Your task to perform on an android device: open a bookmark in the chrome app Image 0: 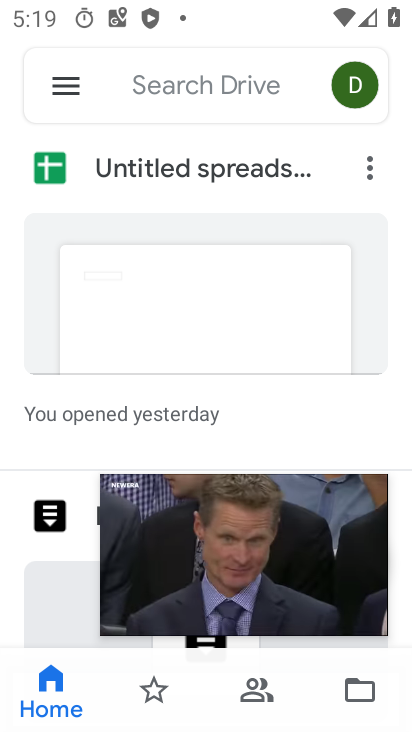
Step 0: press home button
Your task to perform on an android device: open a bookmark in the chrome app Image 1: 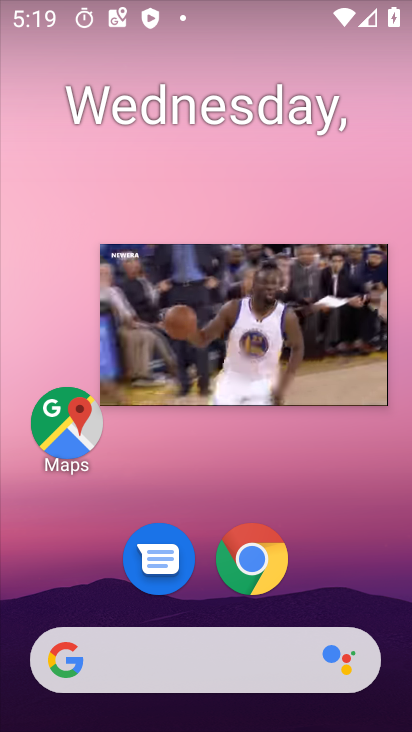
Step 1: click (273, 537)
Your task to perform on an android device: open a bookmark in the chrome app Image 2: 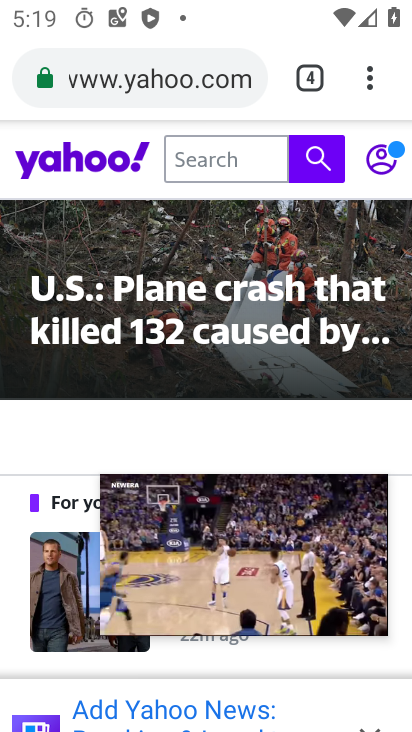
Step 2: click (370, 88)
Your task to perform on an android device: open a bookmark in the chrome app Image 3: 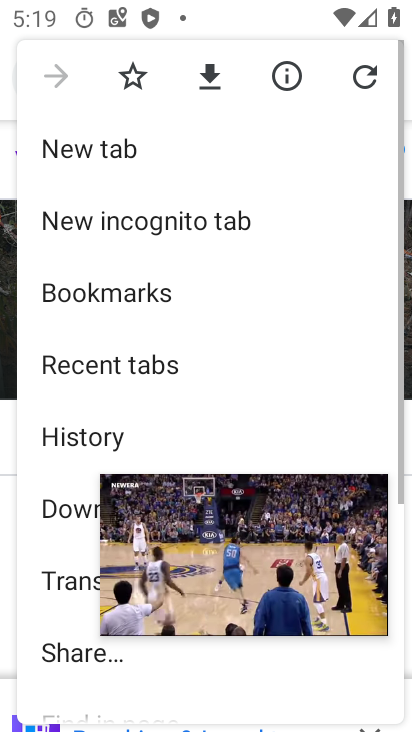
Step 3: click (169, 286)
Your task to perform on an android device: open a bookmark in the chrome app Image 4: 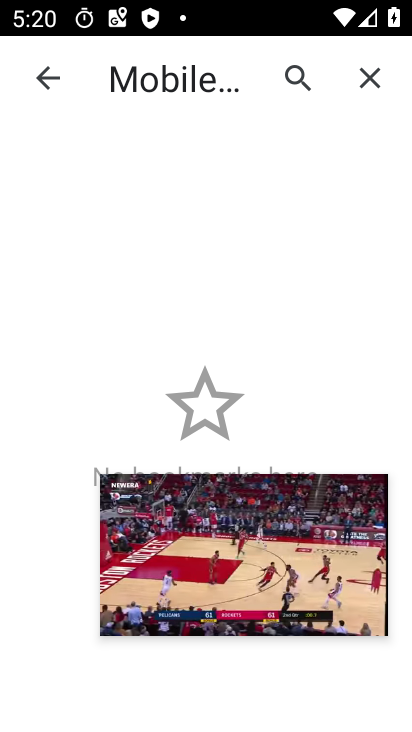
Step 4: click (251, 538)
Your task to perform on an android device: open a bookmark in the chrome app Image 5: 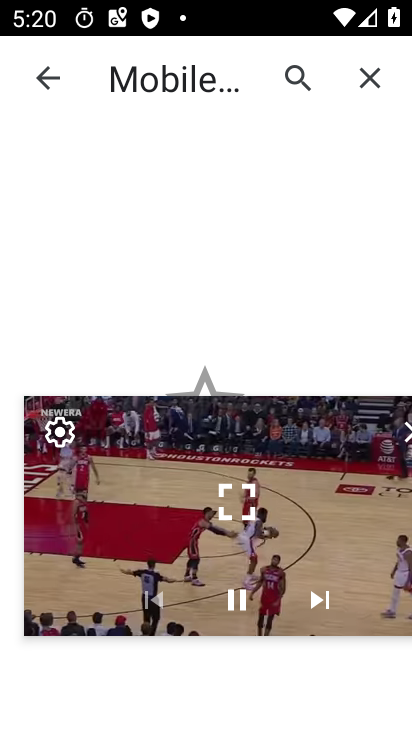
Step 5: click (404, 439)
Your task to perform on an android device: open a bookmark in the chrome app Image 6: 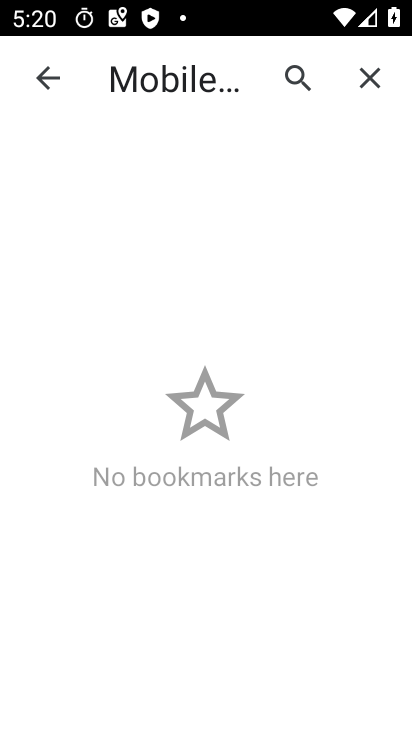
Step 6: task complete